Your task to perform on an android device: Open Chrome and go to the settings page Image 0: 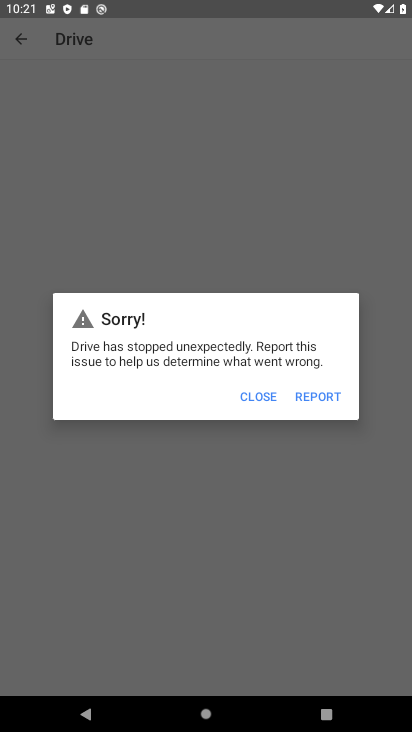
Step 0: press home button
Your task to perform on an android device: Open Chrome and go to the settings page Image 1: 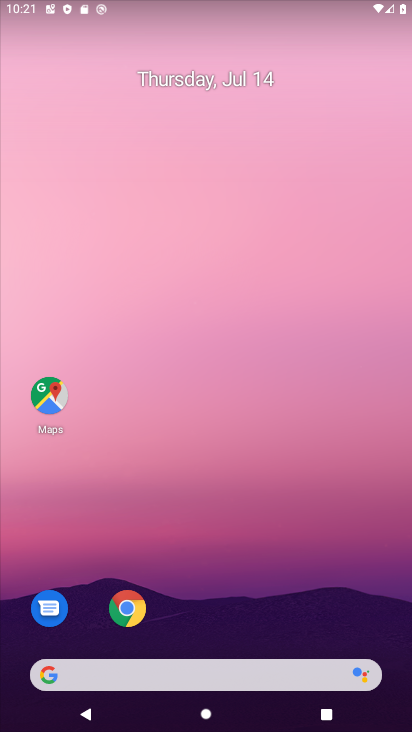
Step 1: drag from (249, 730) to (241, 147)
Your task to perform on an android device: Open Chrome and go to the settings page Image 2: 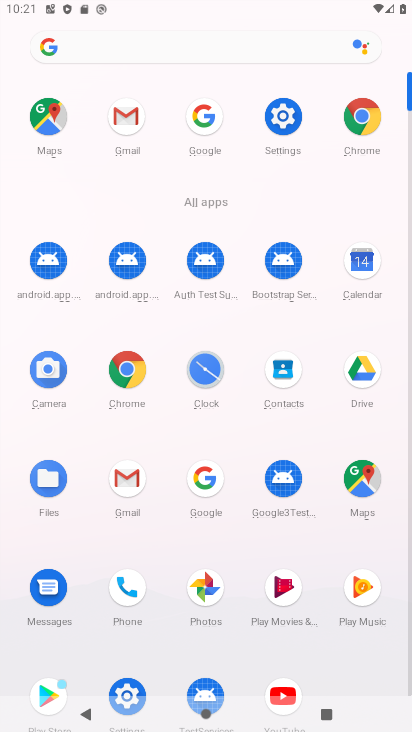
Step 2: click (132, 368)
Your task to perform on an android device: Open Chrome and go to the settings page Image 3: 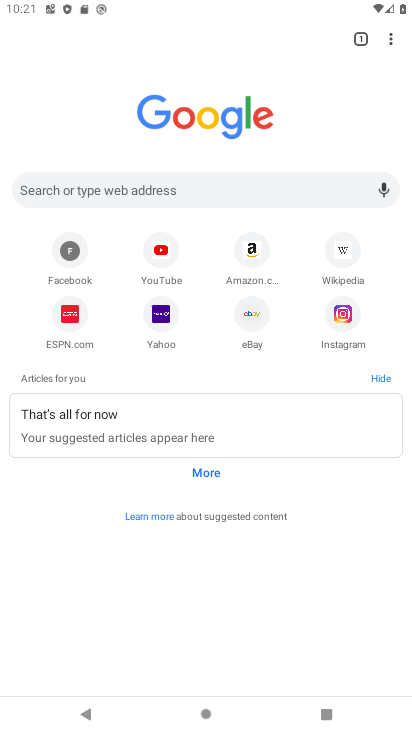
Step 3: click (388, 45)
Your task to perform on an android device: Open Chrome and go to the settings page Image 4: 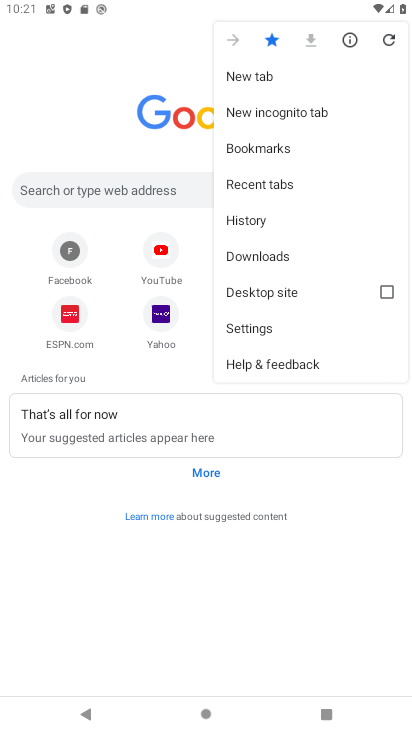
Step 4: click (241, 325)
Your task to perform on an android device: Open Chrome and go to the settings page Image 5: 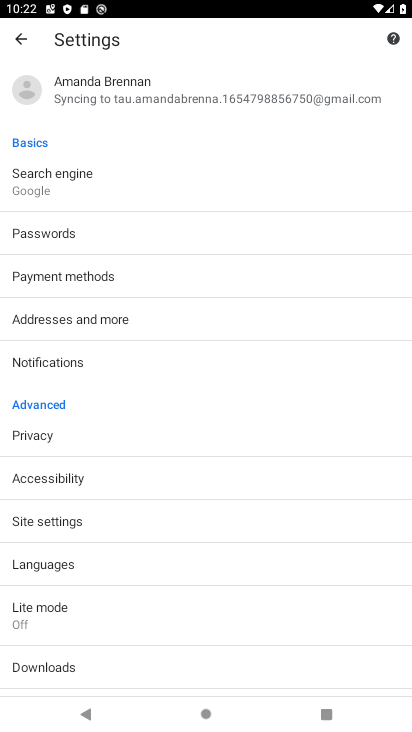
Step 5: task complete